Your task to perform on an android device: What's the weather today? Image 0: 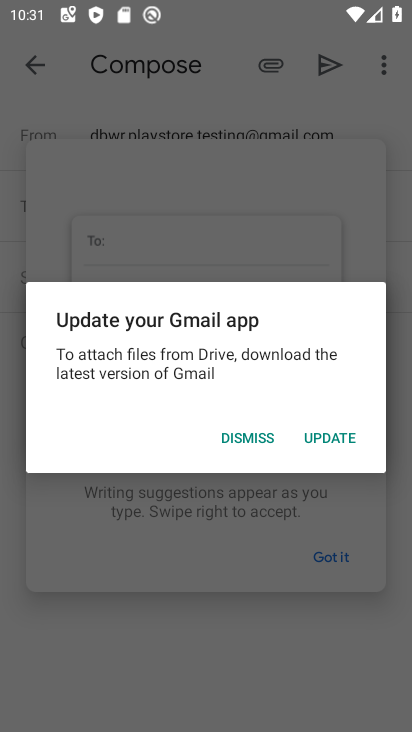
Step 0: press home button
Your task to perform on an android device: What's the weather today? Image 1: 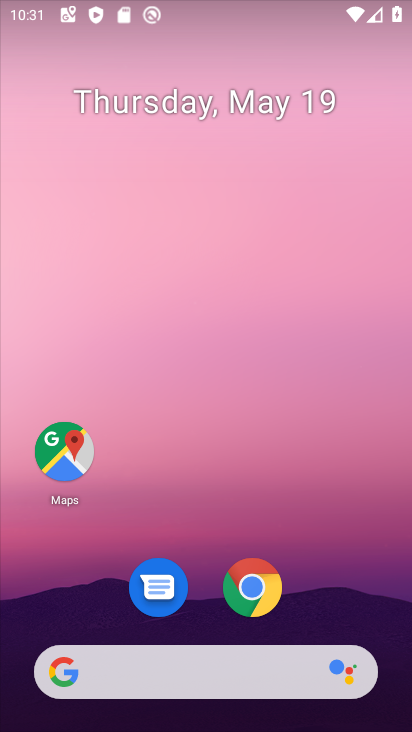
Step 1: drag from (351, 614) to (342, 139)
Your task to perform on an android device: What's the weather today? Image 2: 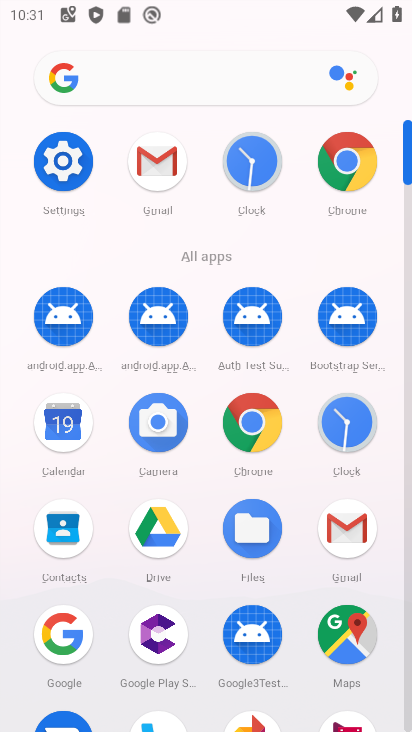
Step 2: click (238, 443)
Your task to perform on an android device: What's the weather today? Image 3: 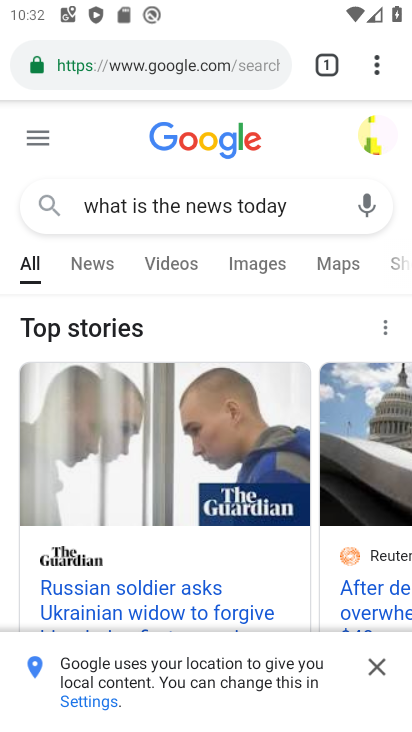
Step 3: task complete